Your task to perform on an android device: Open Yahoo.com Image 0: 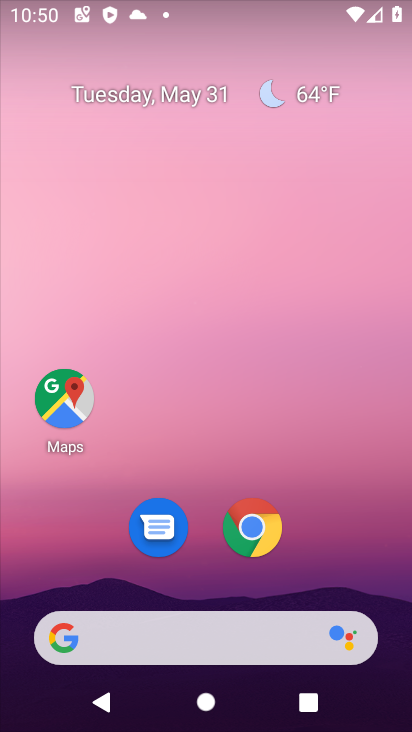
Step 0: click (180, 641)
Your task to perform on an android device: Open Yahoo.com Image 1: 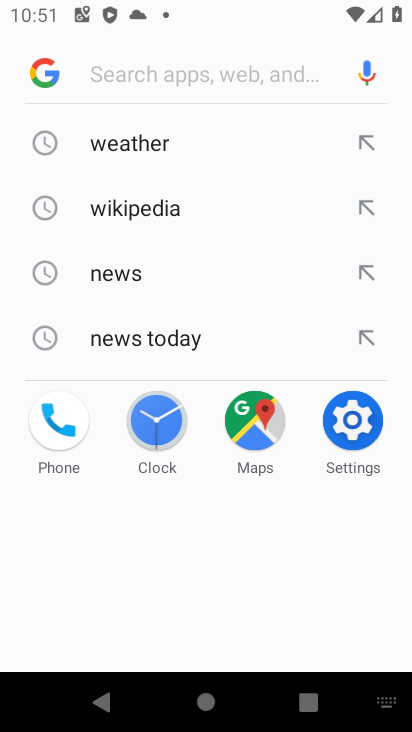
Step 1: type "yahoo.com"
Your task to perform on an android device: Open Yahoo.com Image 2: 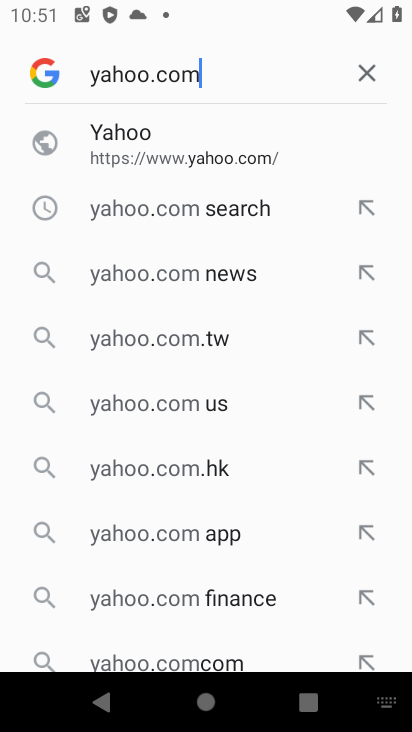
Step 2: click (261, 147)
Your task to perform on an android device: Open Yahoo.com Image 3: 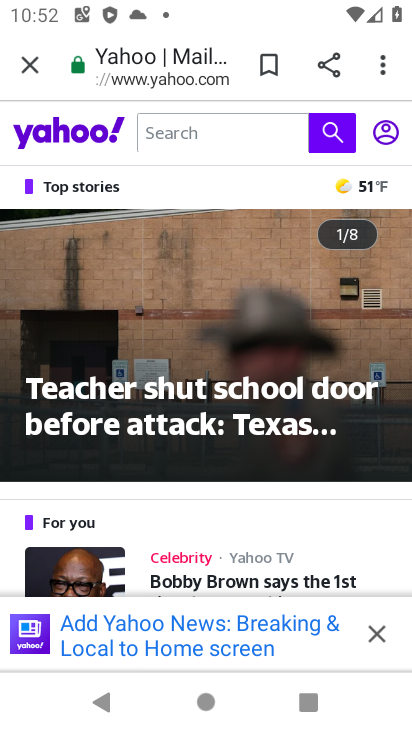
Step 3: task complete